Your task to perform on an android device: turn off smart reply in the gmail app Image 0: 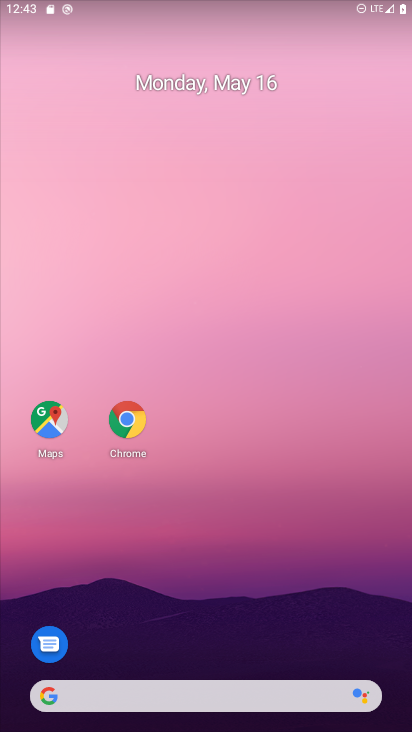
Step 0: drag from (183, 662) to (229, 40)
Your task to perform on an android device: turn off smart reply in the gmail app Image 1: 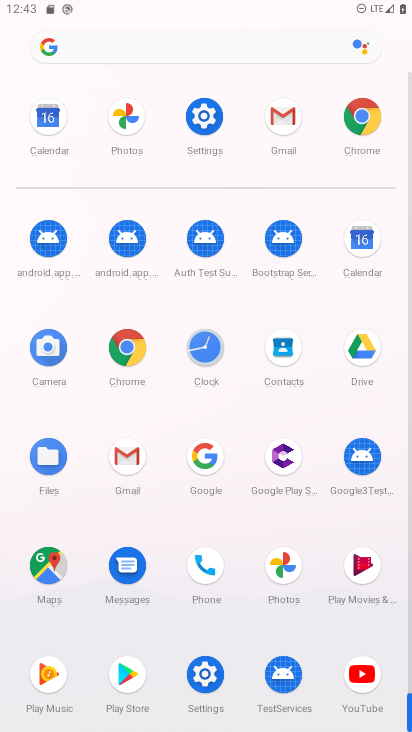
Step 1: click (128, 464)
Your task to perform on an android device: turn off smart reply in the gmail app Image 2: 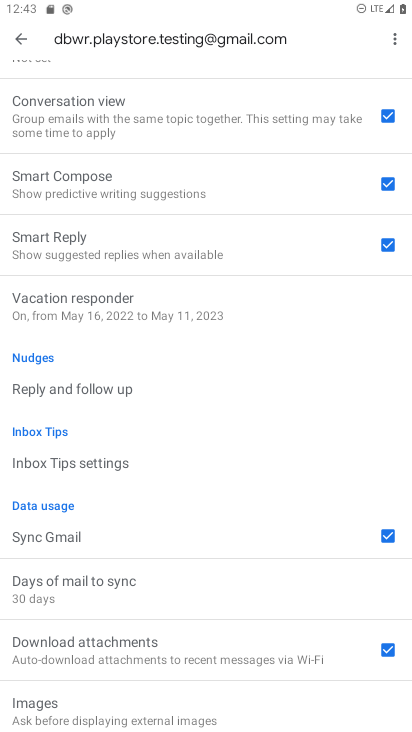
Step 2: drag from (261, 638) to (270, 536)
Your task to perform on an android device: turn off smart reply in the gmail app Image 3: 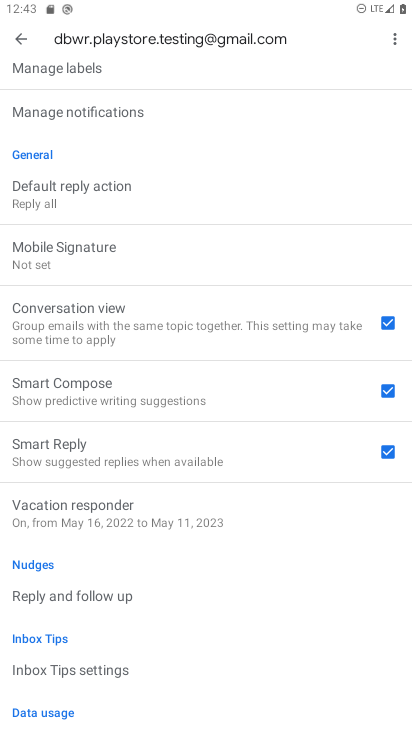
Step 3: click (385, 453)
Your task to perform on an android device: turn off smart reply in the gmail app Image 4: 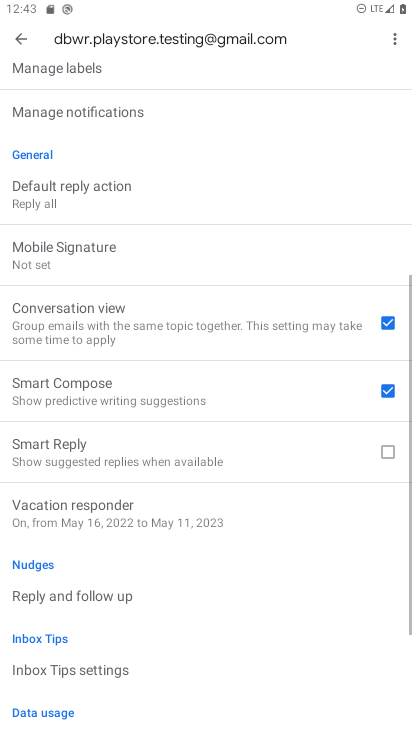
Step 4: task complete